Your task to perform on an android device: open chrome and create a bookmark for the current page Image 0: 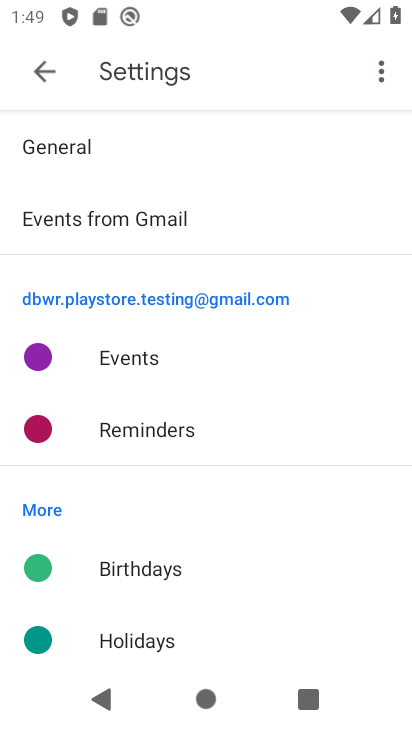
Step 0: press home button
Your task to perform on an android device: open chrome and create a bookmark for the current page Image 1: 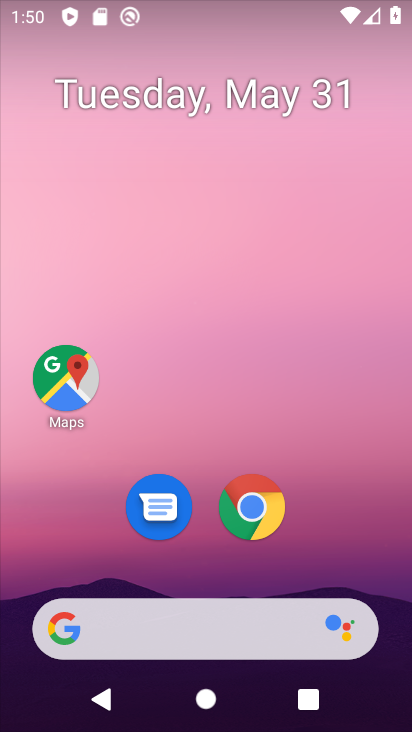
Step 1: click (250, 518)
Your task to perform on an android device: open chrome and create a bookmark for the current page Image 2: 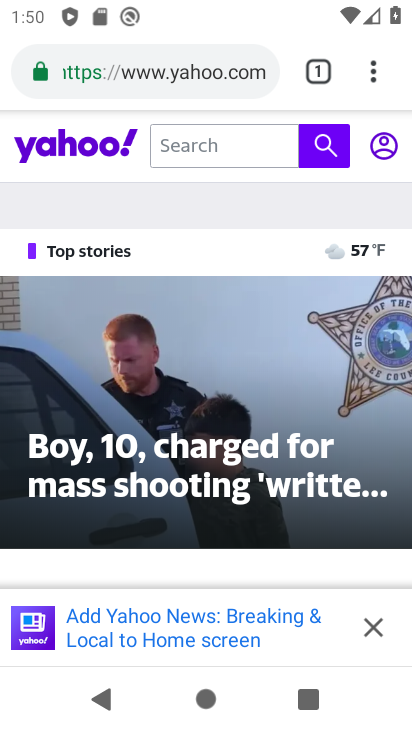
Step 2: task complete